Your task to perform on an android device: turn off notifications settings in the gmail app Image 0: 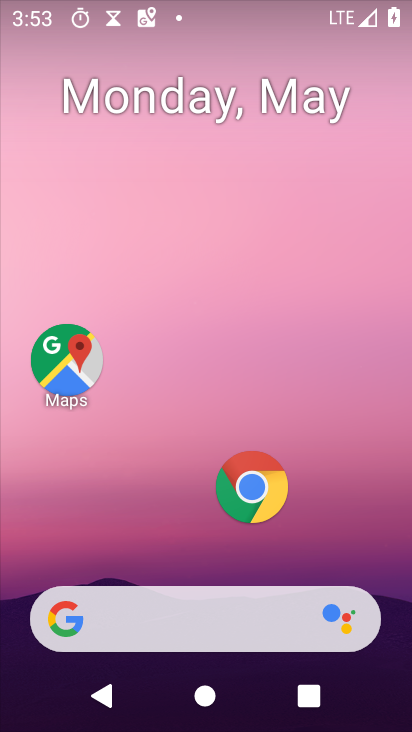
Step 0: drag from (145, 530) to (146, 57)
Your task to perform on an android device: turn off notifications settings in the gmail app Image 1: 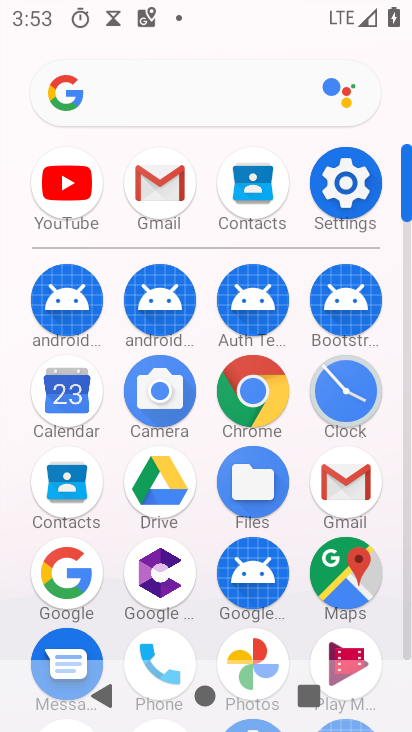
Step 1: click (334, 491)
Your task to perform on an android device: turn off notifications settings in the gmail app Image 2: 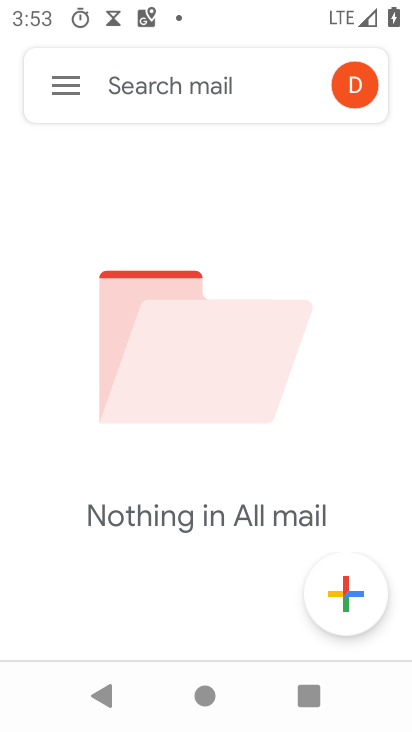
Step 2: click (76, 80)
Your task to perform on an android device: turn off notifications settings in the gmail app Image 3: 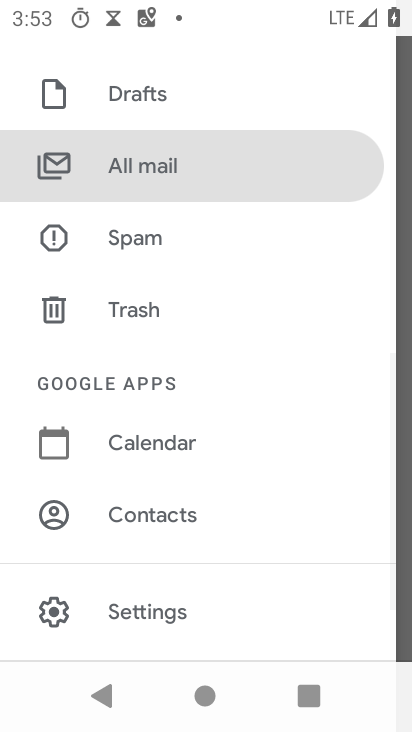
Step 3: click (140, 598)
Your task to perform on an android device: turn off notifications settings in the gmail app Image 4: 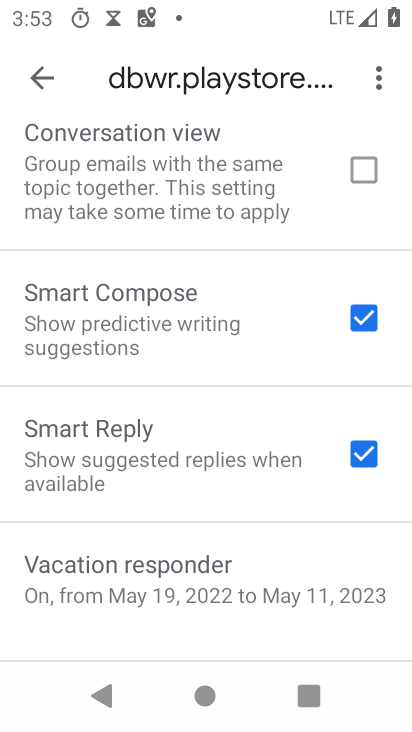
Step 4: drag from (202, 314) to (220, 621)
Your task to perform on an android device: turn off notifications settings in the gmail app Image 5: 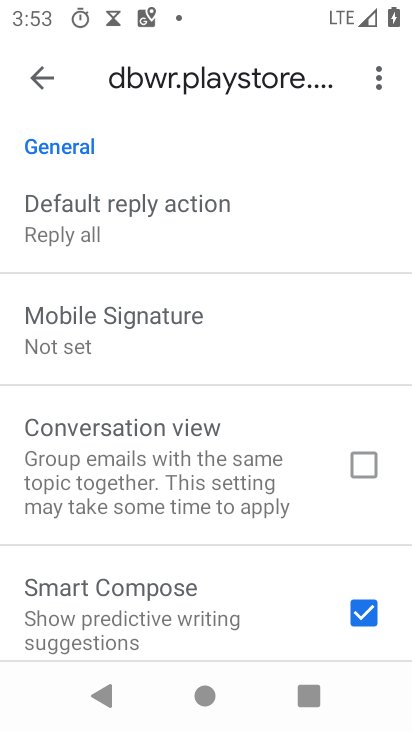
Step 5: drag from (165, 282) to (169, 555)
Your task to perform on an android device: turn off notifications settings in the gmail app Image 6: 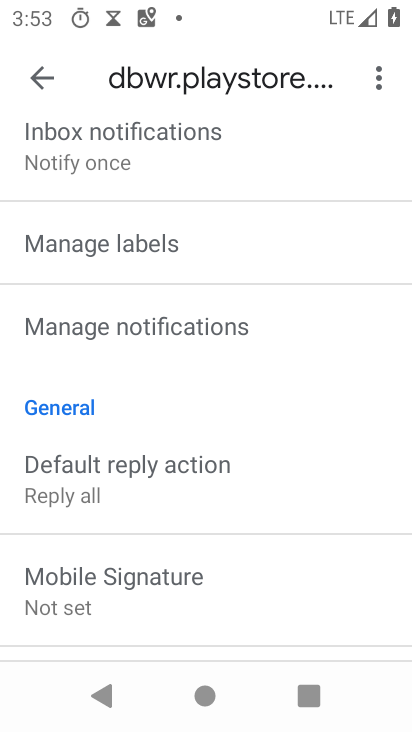
Step 6: click (145, 316)
Your task to perform on an android device: turn off notifications settings in the gmail app Image 7: 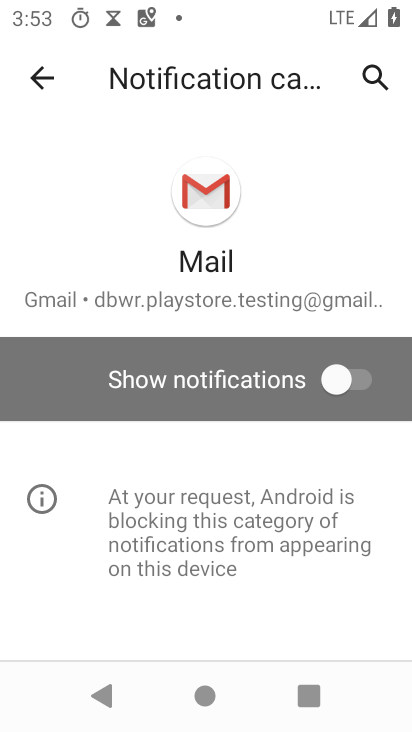
Step 7: task complete